Your task to perform on an android device: find photos in the google photos app Image 0: 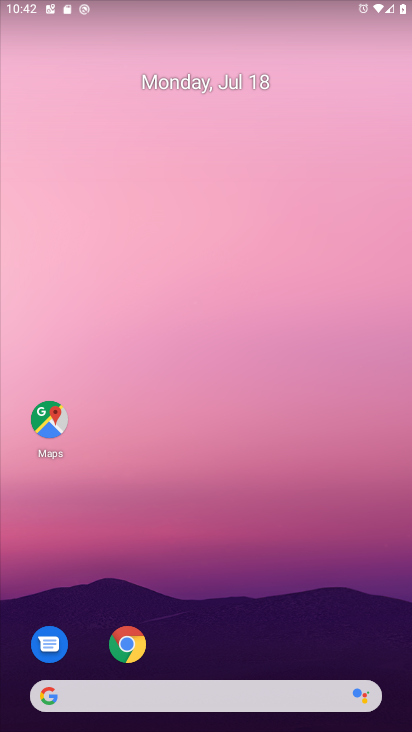
Step 0: drag from (210, 663) to (248, 196)
Your task to perform on an android device: find photos in the google photos app Image 1: 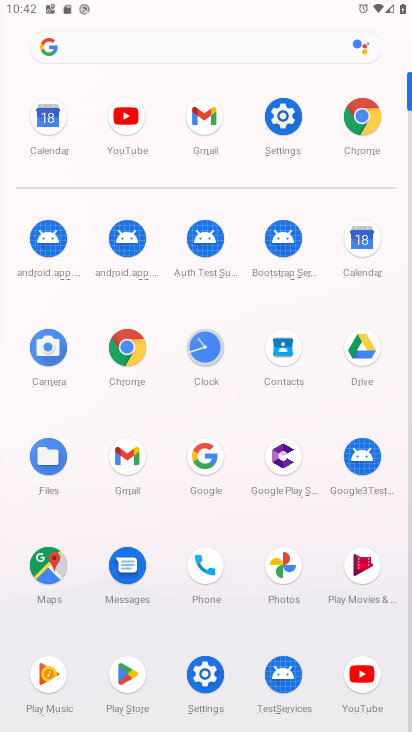
Step 1: click (296, 552)
Your task to perform on an android device: find photos in the google photos app Image 2: 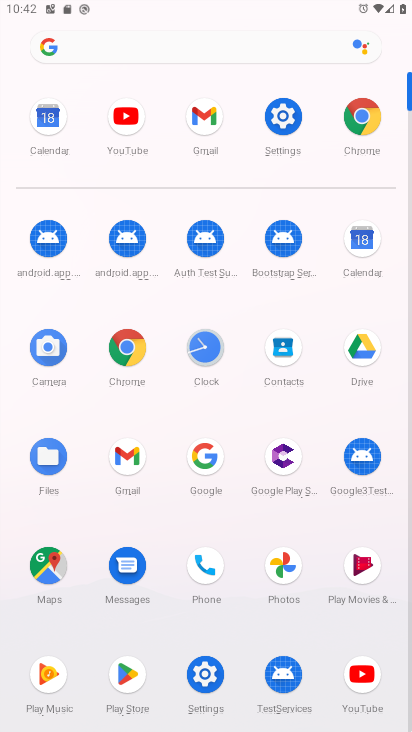
Step 2: click (296, 552)
Your task to perform on an android device: find photos in the google photos app Image 3: 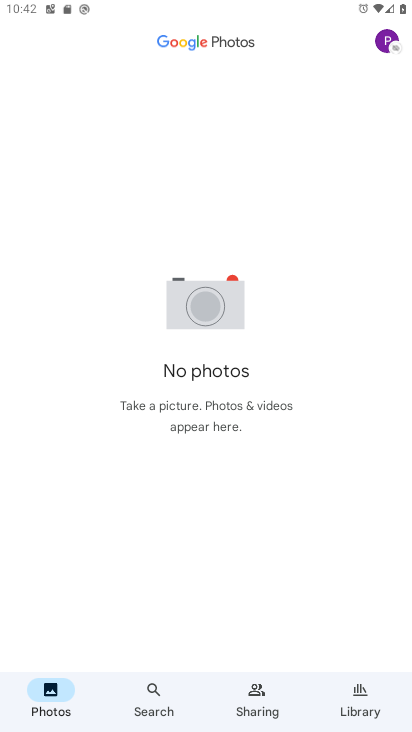
Step 3: task complete